Your task to perform on an android device: When is my next meeting? Image 0: 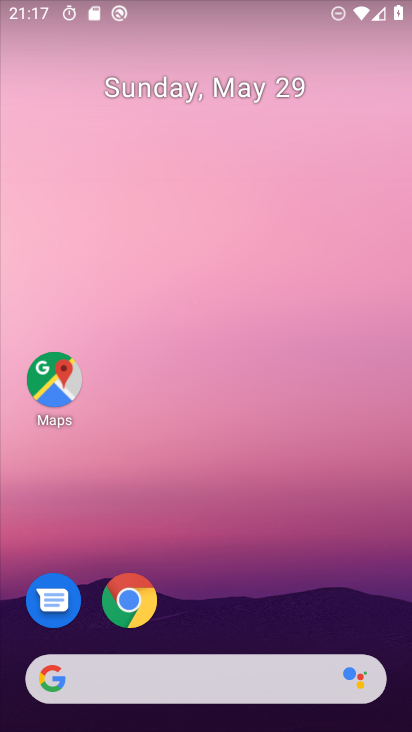
Step 0: drag from (276, 569) to (277, 149)
Your task to perform on an android device: When is my next meeting? Image 1: 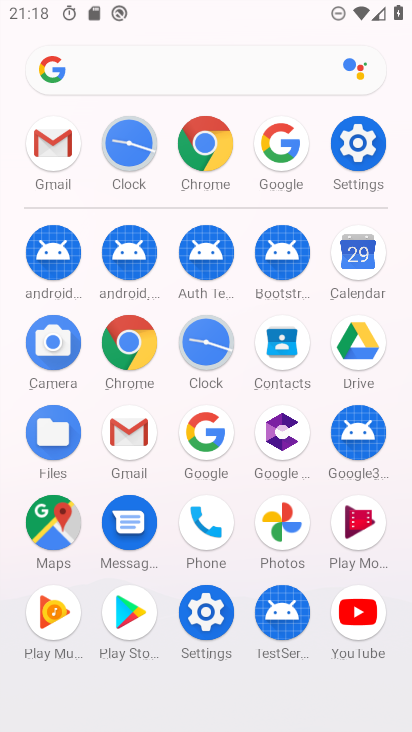
Step 1: click (356, 283)
Your task to perform on an android device: When is my next meeting? Image 2: 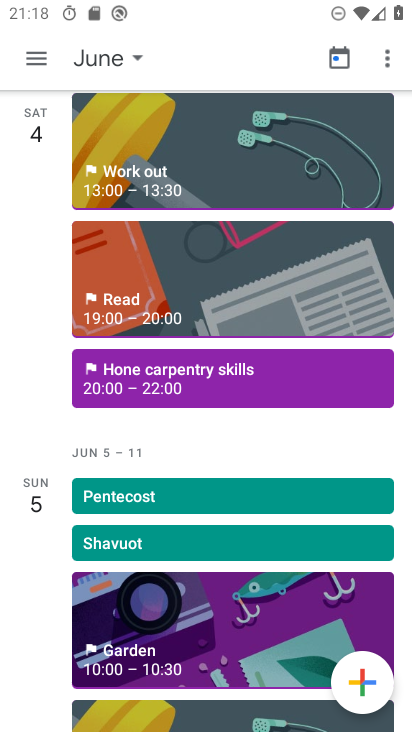
Step 2: click (112, 67)
Your task to perform on an android device: When is my next meeting? Image 3: 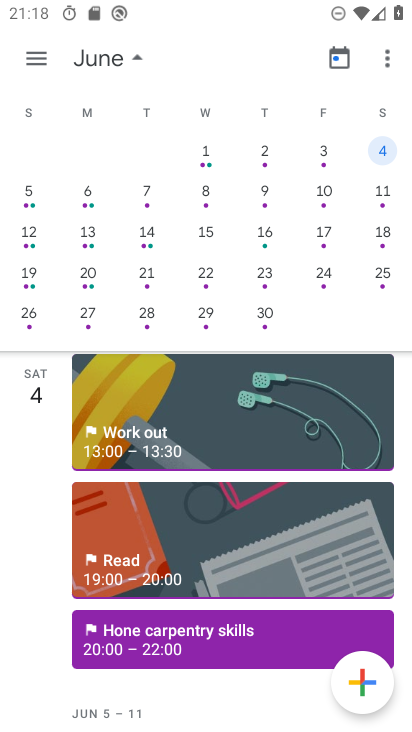
Step 3: task complete